Your task to perform on an android device: toggle notifications settings in the gmail app Image 0: 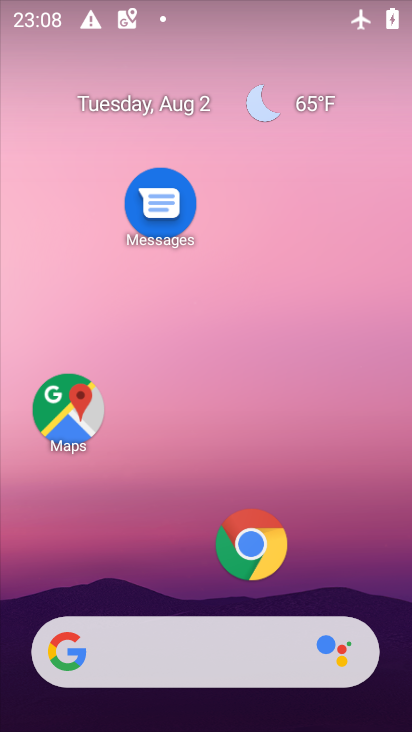
Step 0: drag from (169, 583) to (114, 147)
Your task to perform on an android device: toggle notifications settings in the gmail app Image 1: 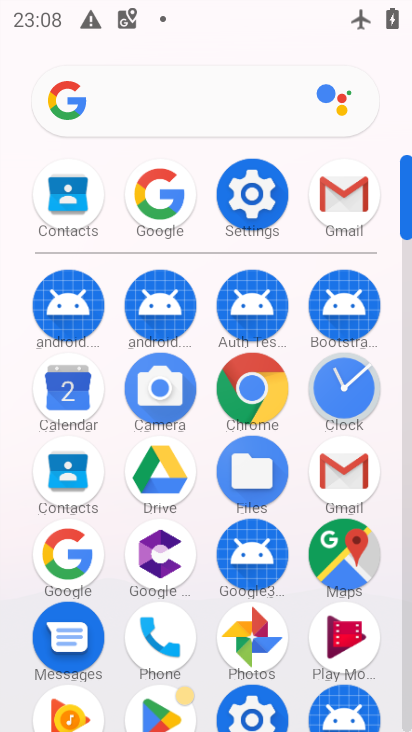
Step 1: click (328, 199)
Your task to perform on an android device: toggle notifications settings in the gmail app Image 2: 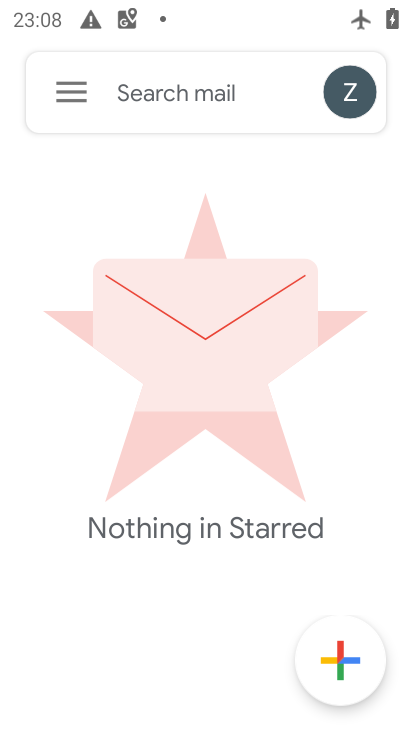
Step 2: click (60, 106)
Your task to perform on an android device: toggle notifications settings in the gmail app Image 3: 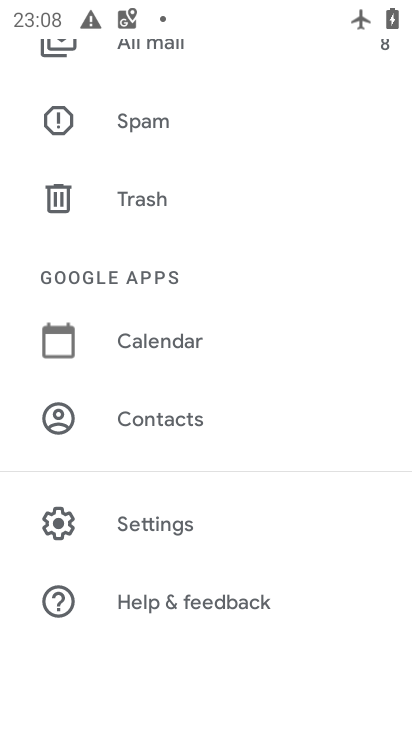
Step 3: click (163, 526)
Your task to perform on an android device: toggle notifications settings in the gmail app Image 4: 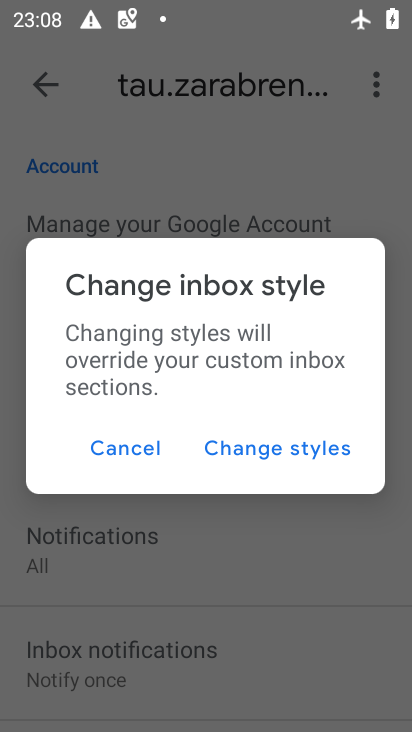
Step 4: click (115, 456)
Your task to perform on an android device: toggle notifications settings in the gmail app Image 5: 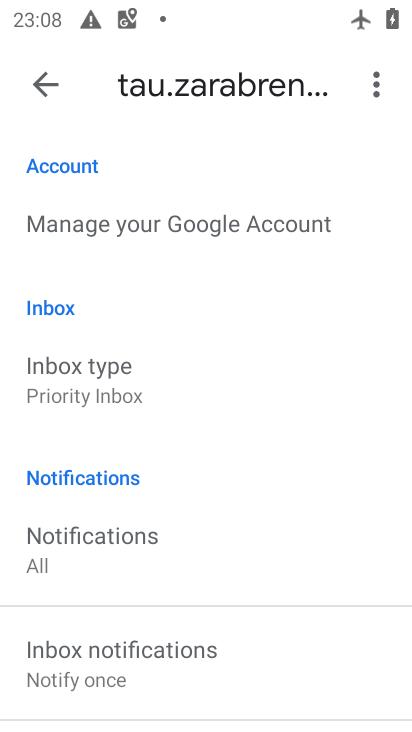
Step 5: drag from (169, 610) to (175, 284)
Your task to perform on an android device: toggle notifications settings in the gmail app Image 6: 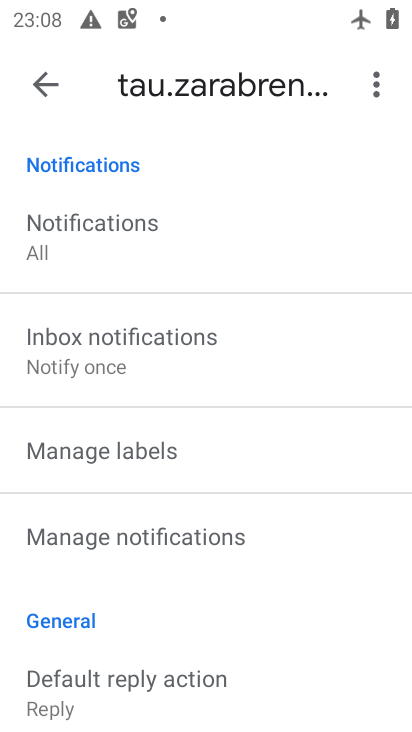
Step 6: click (166, 524)
Your task to perform on an android device: toggle notifications settings in the gmail app Image 7: 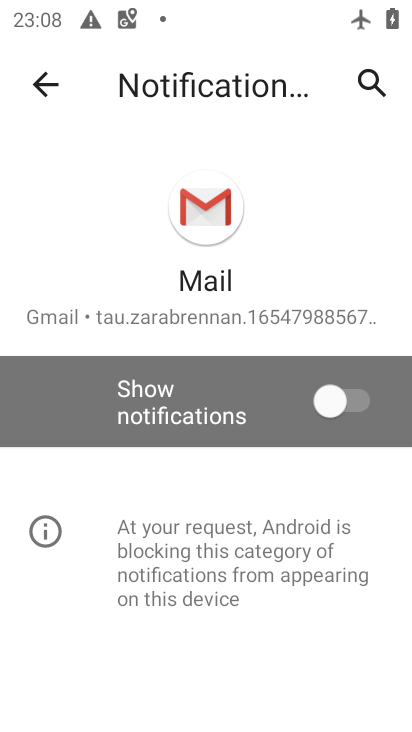
Step 7: task complete